Your task to perform on an android device: turn on the 24-hour format for clock Image 0: 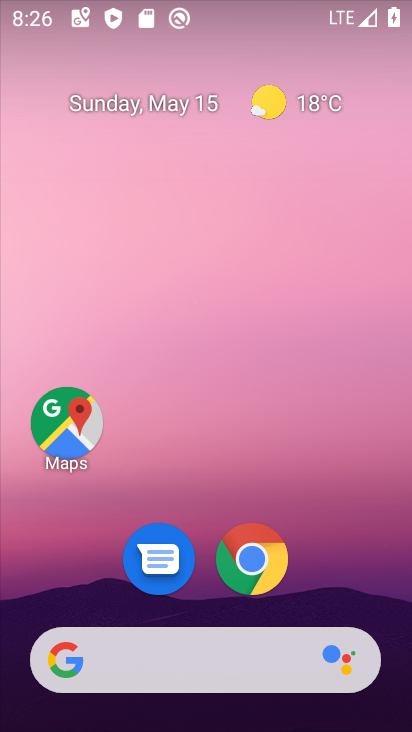
Step 0: drag from (200, 480) to (125, 136)
Your task to perform on an android device: turn on the 24-hour format for clock Image 1: 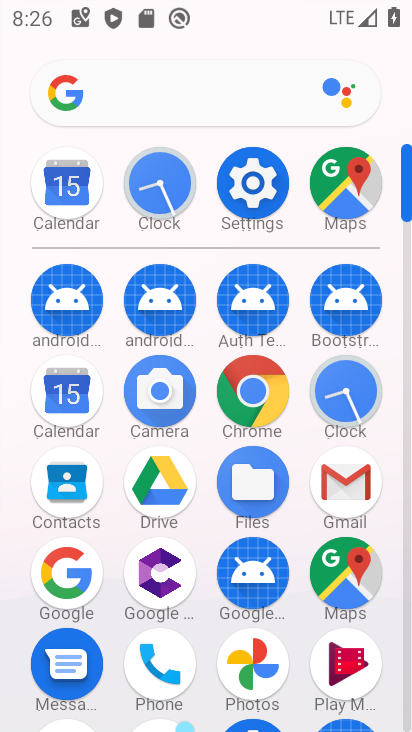
Step 1: click (344, 391)
Your task to perform on an android device: turn on the 24-hour format for clock Image 2: 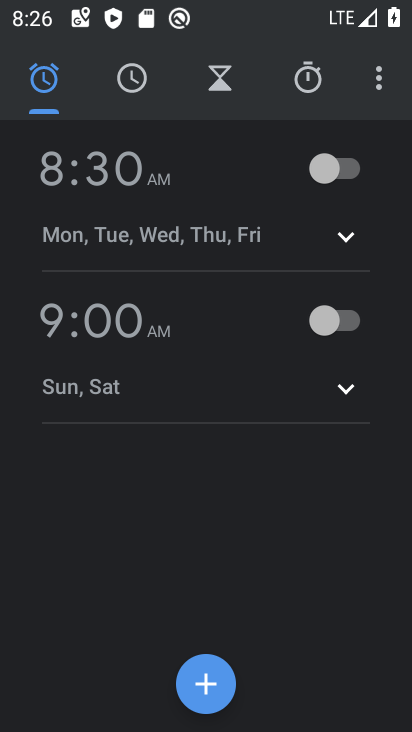
Step 2: click (380, 75)
Your task to perform on an android device: turn on the 24-hour format for clock Image 3: 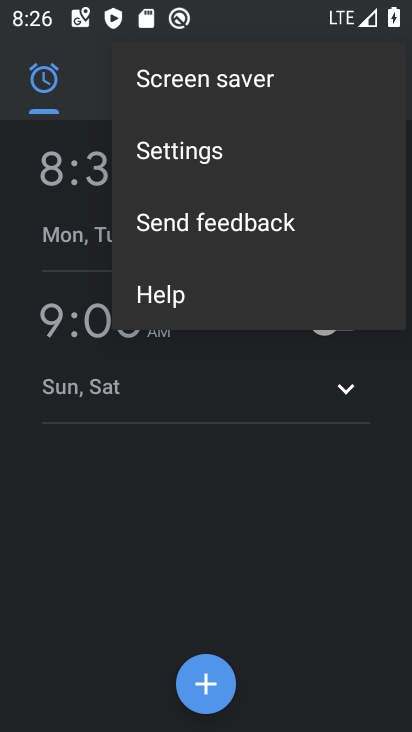
Step 3: click (206, 149)
Your task to perform on an android device: turn on the 24-hour format for clock Image 4: 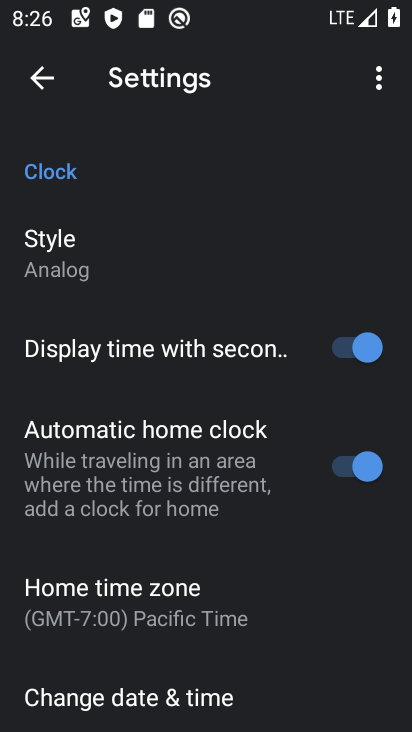
Step 4: drag from (249, 570) to (193, 342)
Your task to perform on an android device: turn on the 24-hour format for clock Image 5: 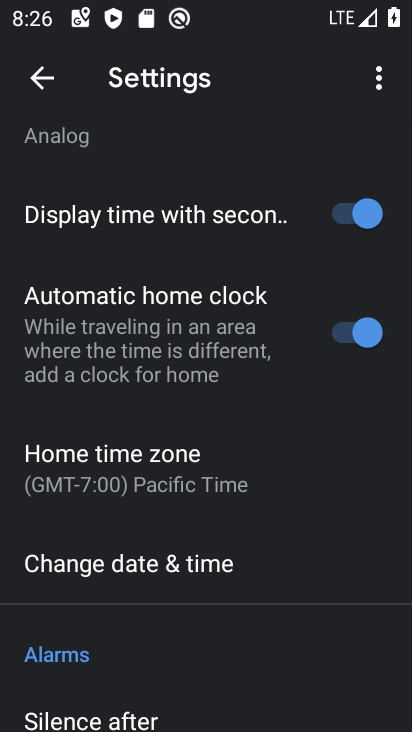
Step 5: click (159, 569)
Your task to perform on an android device: turn on the 24-hour format for clock Image 6: 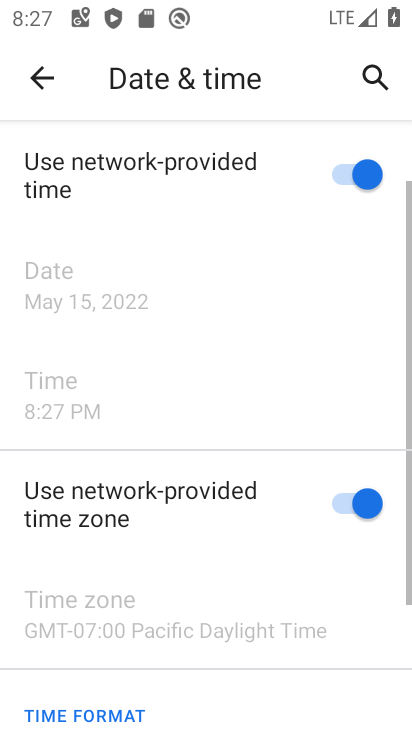
Step 6: drag from (210, 583) to (134, 226)
Your task to perform on an android device: turn on the 24-hour format for clock Image 7: 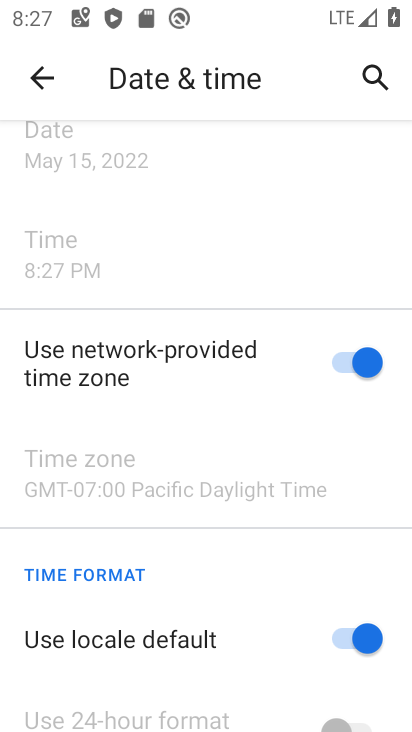
Step 7: drag from (206, 590) to (206, 310)
Your task to perform on an android device: turn on the 24-hour format for clock Image 8: 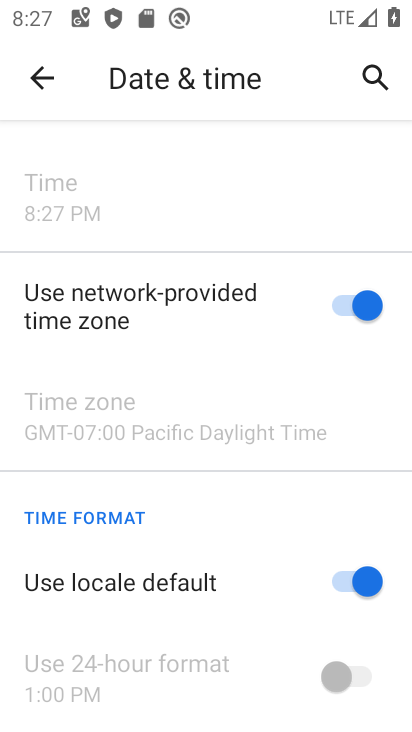
Step 8: click (364, 574)
Your task to perform on an android device: turn on the 24-hour format for clock Image 9: 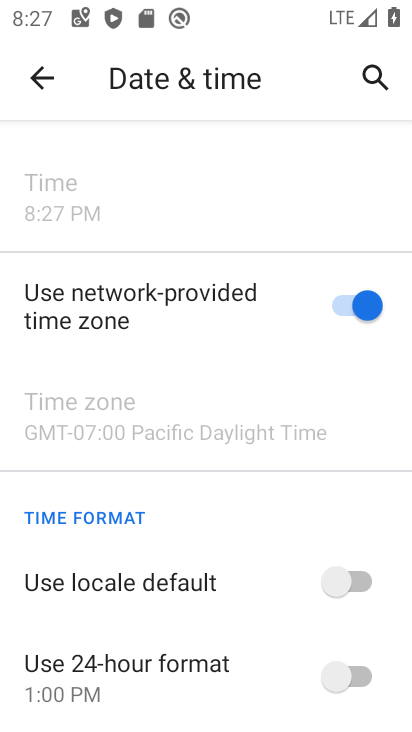
Step 9: click (343, 673)
Your task to perform on an android device: turn on the 24-hour format for clock Image 10: 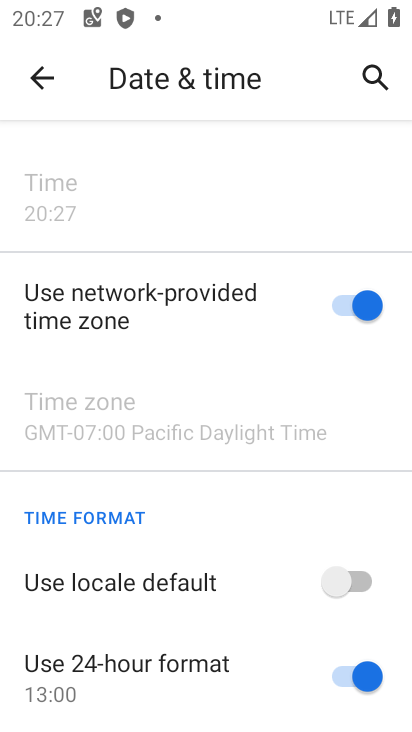
Step 10: task complete